Your task to perform on an android device: toggle improve location accuracy Image 0: 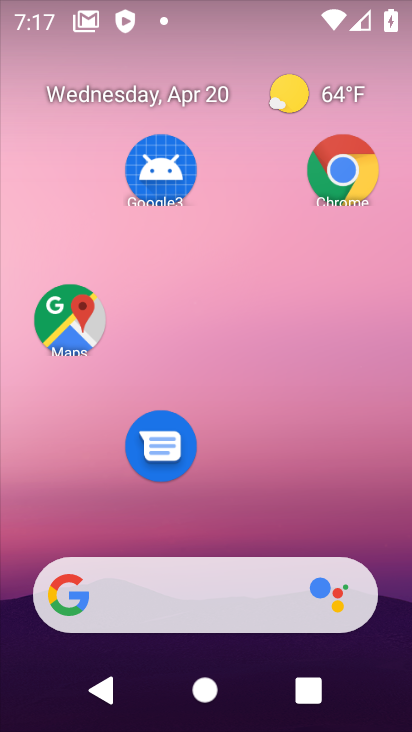
Step 0: drag from (240, 510) to (245, 103)
Your task to perform on an android device: toggle improve location accuracy Image 1: 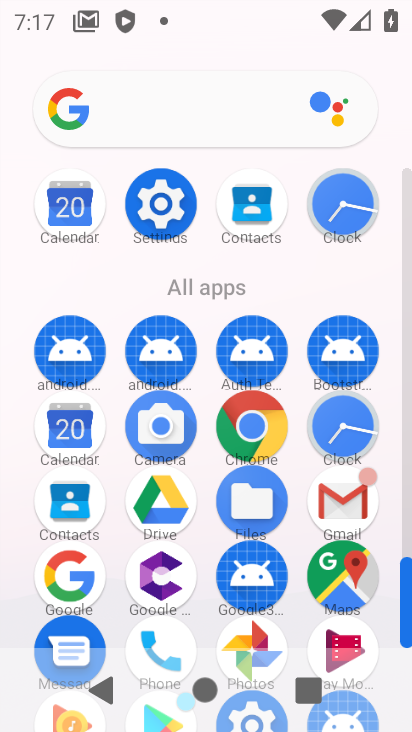
Step 1: click (164, 206)
Your task to perform on an android device: toggle improve location accuracy Image 2: 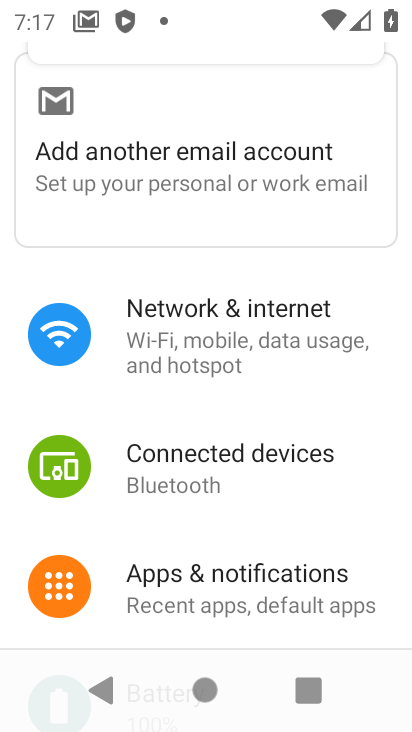
Step 2: drag from (208, 524) to (209, 164)
Your task to perform on an android device: toggle improve location accuracy Image 3: 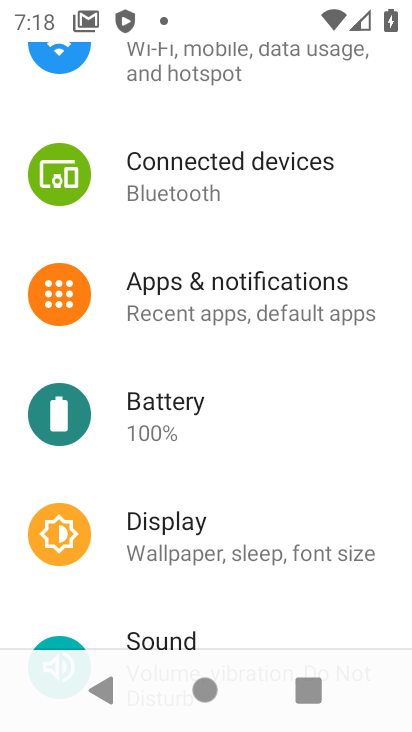
Step 3: drag from (199, 583) to (192, 159)
Your task to perform on an android device: toggle improve location accuracy Image 4: 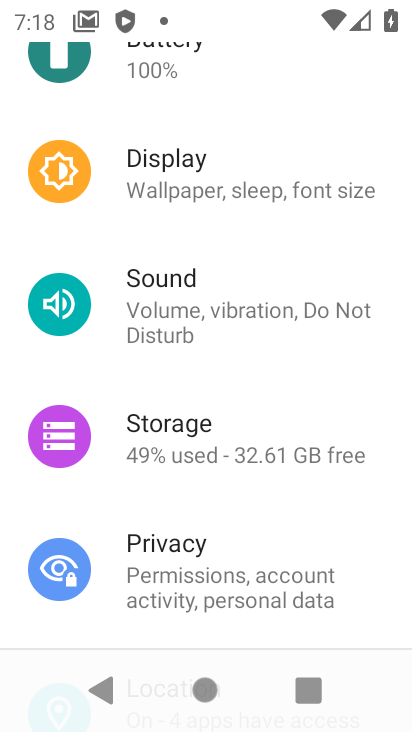
Step 4: drag from (183, 508) to (200, 89)
Your task to perform on an android device: toggle improve location accuracy Image 5: 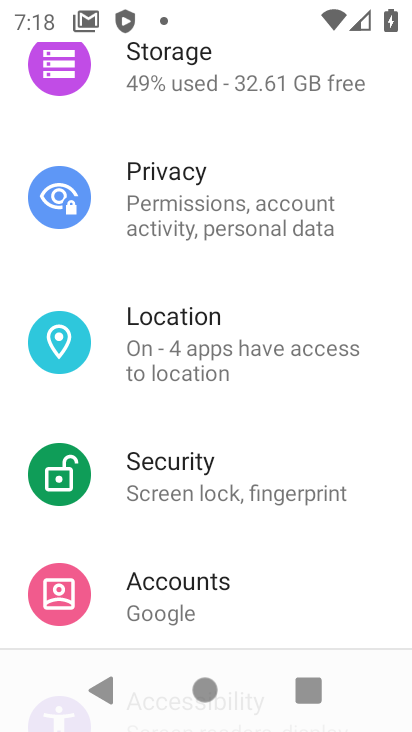
Step 5: click (191, 311)
Your task to perform on an android device: toggle improve location accuracy Image 6: 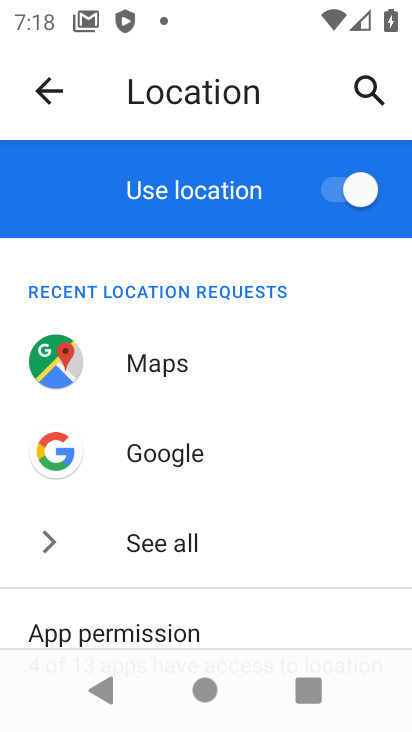
Step 6: drag from (225, 537) to (224, 379)
Your task to perform on an android device: toggle improve location accuracy Image 7: 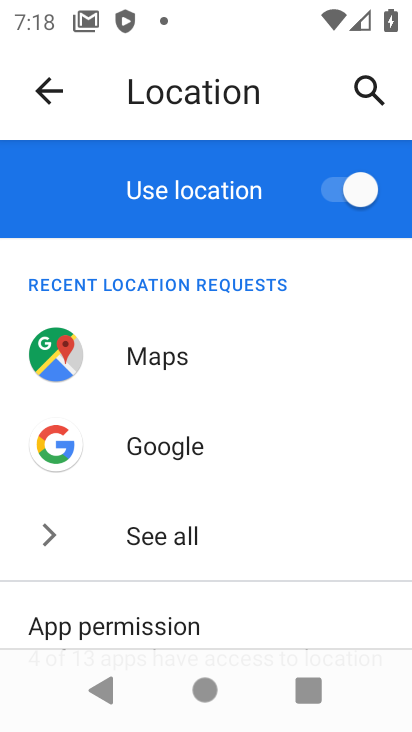
Step 7: drag from (198, 574) to (198, 398)
Your task to perform on an android device: toggle improve location accuracy Image 8: 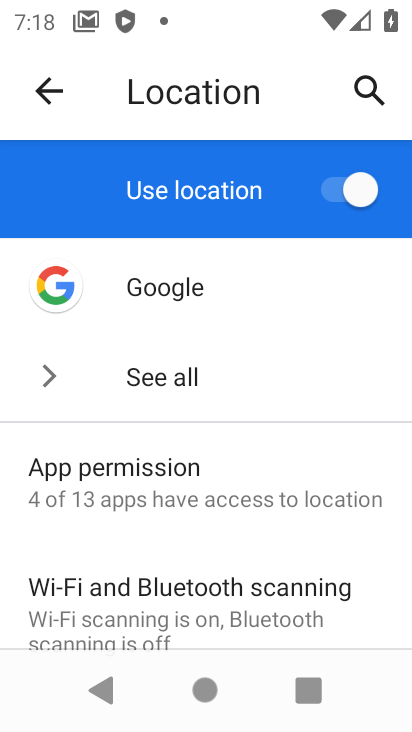
Step 8: drag from (203, 547) to (190, 285)
Your task to perform on an android device: toggle improve location accuracy Image 9: 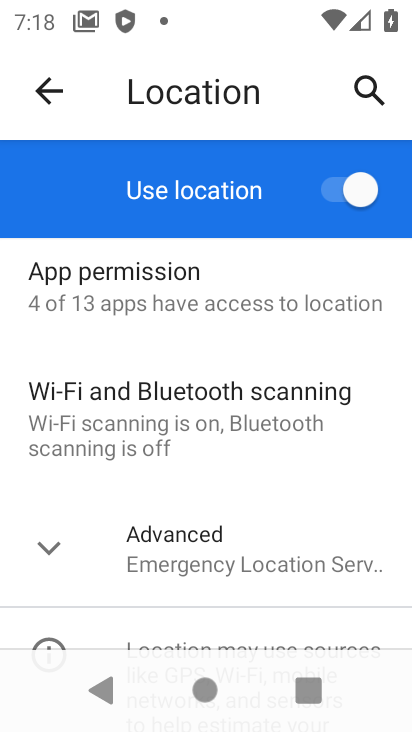
Step 9: drag from (86, 572) to (79, 283)
Your task to perform on an android device: toggle improve location accuracy Image 10: 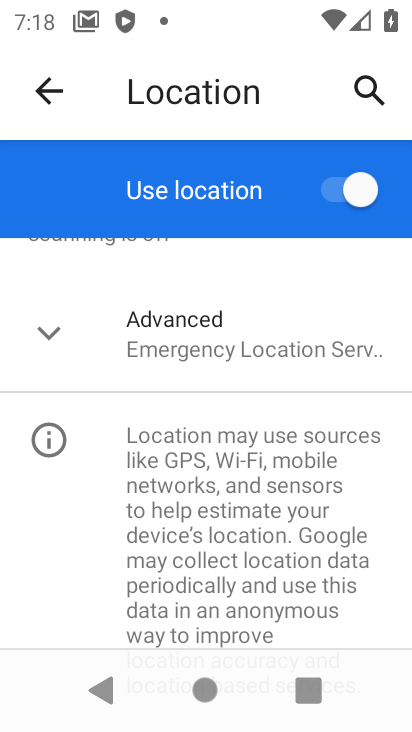
Step 10: click (60, 332)
Your task to perform on an android device: toggle improve location accuracy Image 11: 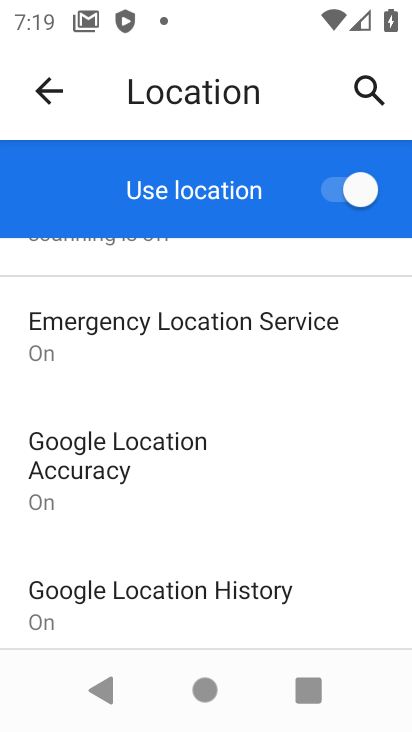
Step 11: drag from (169, 517) to (174, 408)
Your task to perform on an android device: toggle improve location accuracy Image 12: 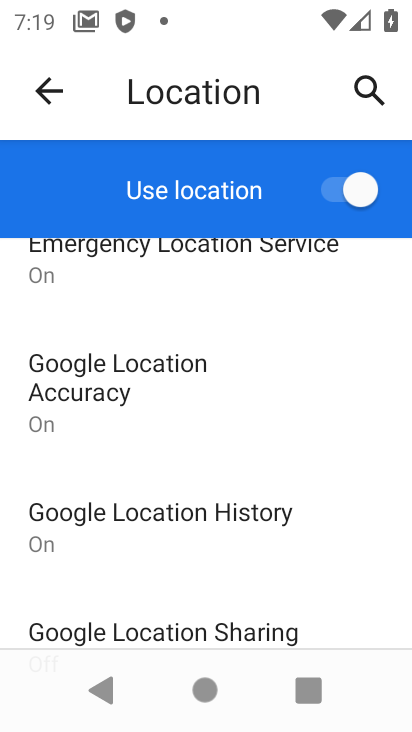
Step 12: click (106, 381)
Your task to perform on an android device: toggle improve location accuracy Image 13: 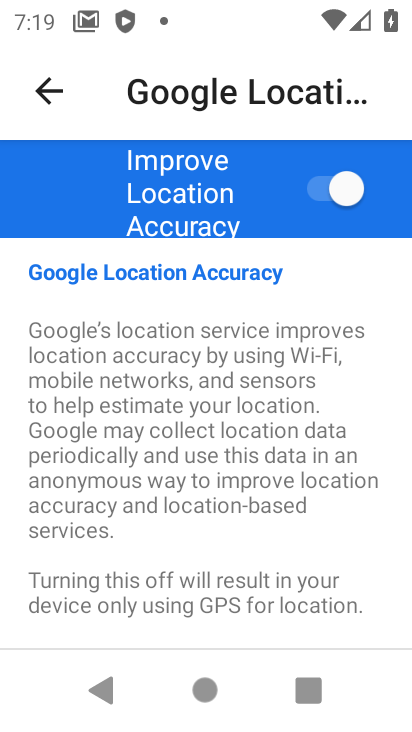
Step 13: click (352, 197)
Your task to perform on an android device: toggle improve location accuracy Image 14: 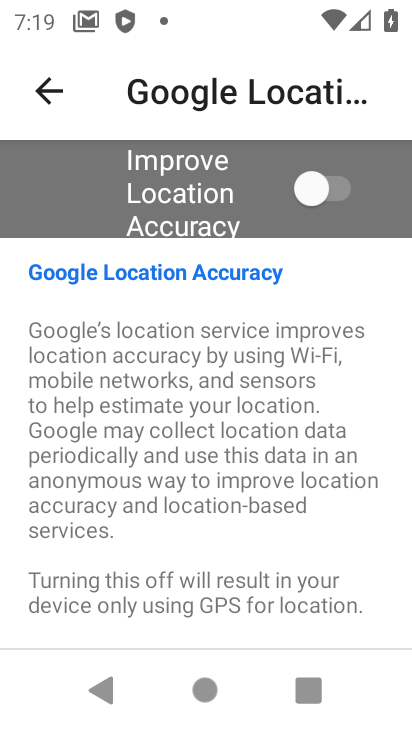
Step 14: task complete